Your task to perform on an android device: What's the weather going to be tomorrow? Image 0: 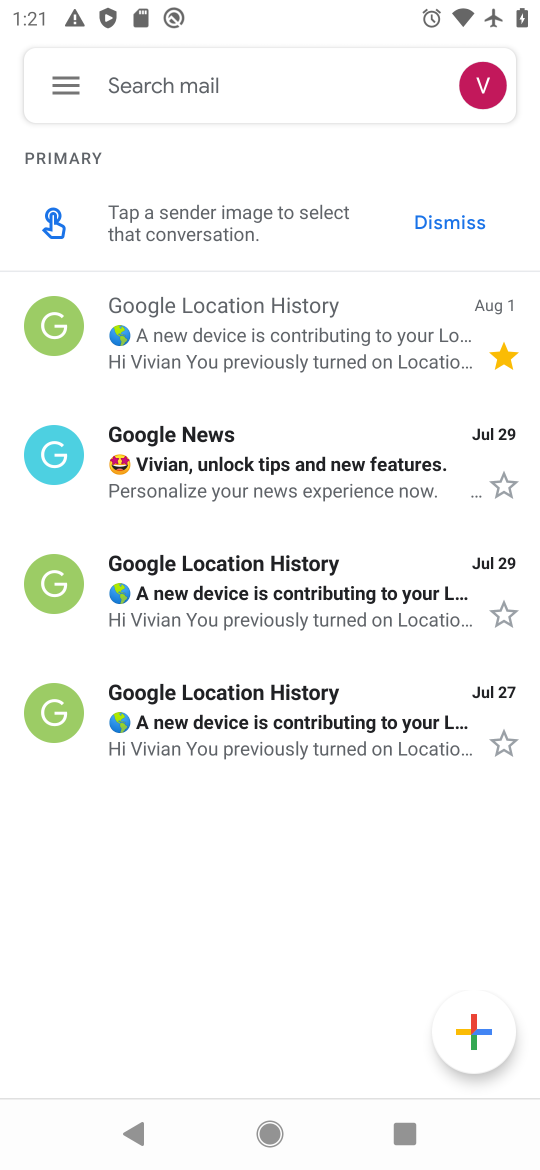
Step 0: click (72, 89)
Your task to perform on an android device: What's the weather going to be tomorrow? Image 1: 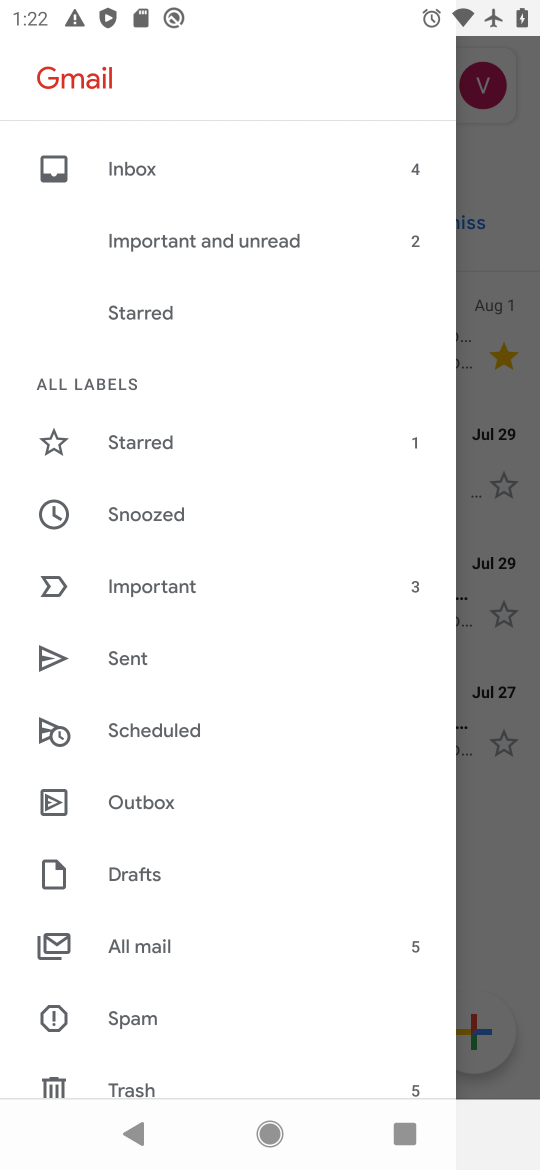
Step 1: task complete